Your task to perform on an android device: change the clock display to digital Image 0: 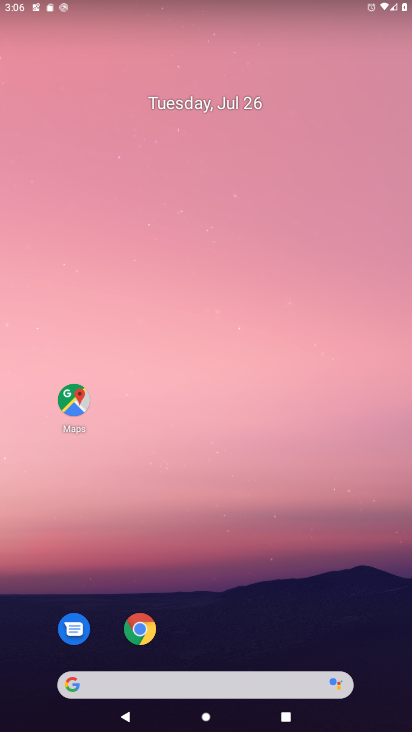
Step 0: drag from (190, 590) to (177, 98)
Your task to perform on an android device: change the clock display to digital Image 1: 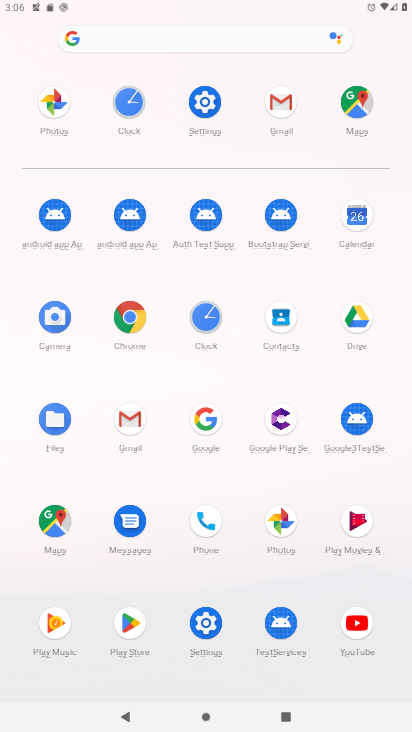
Step 1: click (138, 110)
Your task to perform on an android device: change the clock display to digital Image 2: 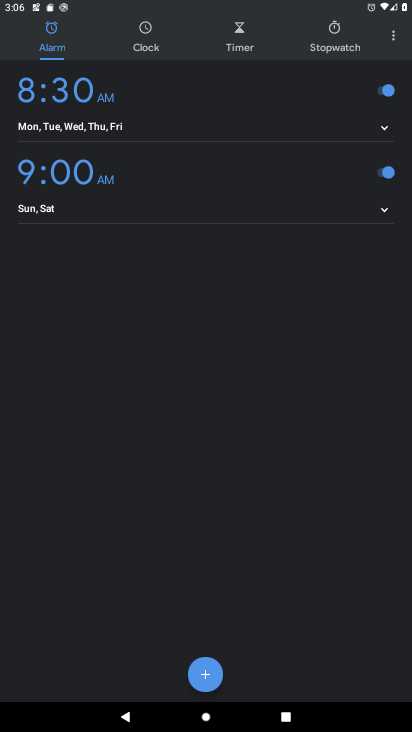
Step 2: click (383, 39)
Your task to perform on an android device: change the clock display to digital Image 3: 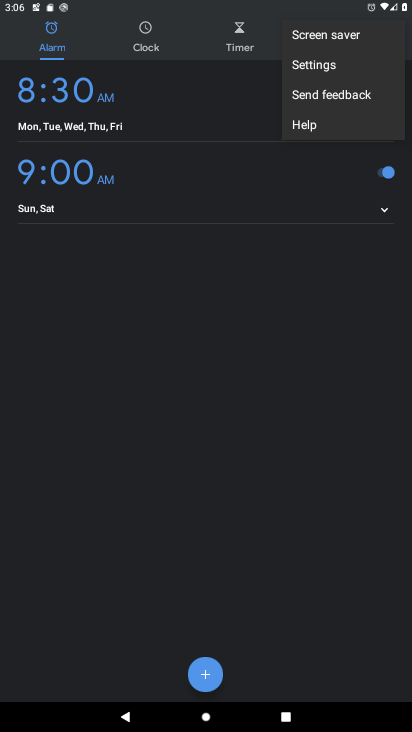
Step 3: click (325, 62)
Your task to perform on an android device: change the clock display to digital Image 4: 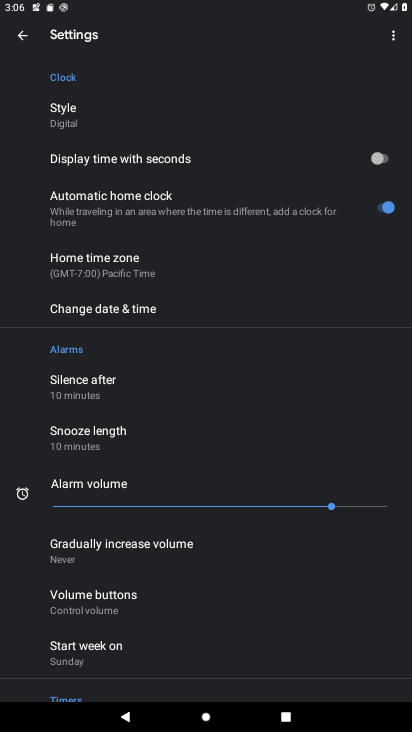
Step 4: click (80, 114)
Your task to perform on an android device: change the clock display to digital Image 5: 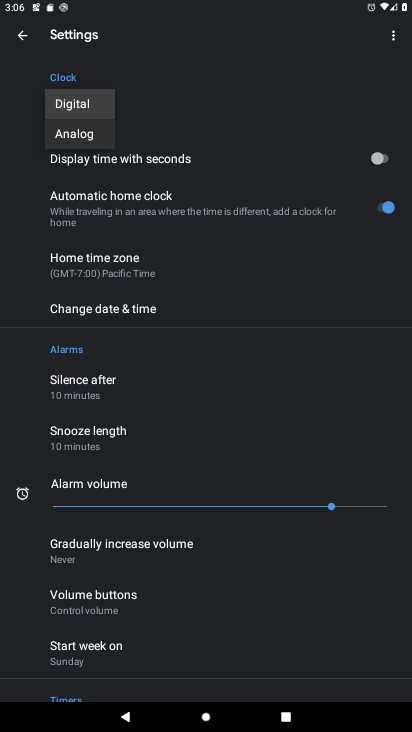
Step 5: task complete